Your task to perform on an android device: check data usage Image 0: 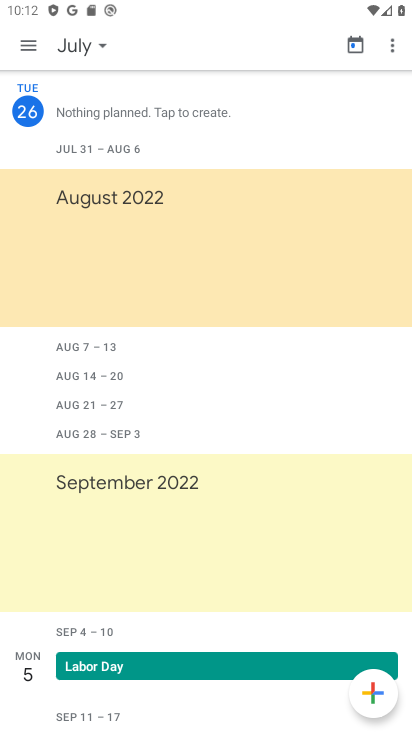
Step 0: press home button
Your task to perform on an android device: check data usage Image 1: 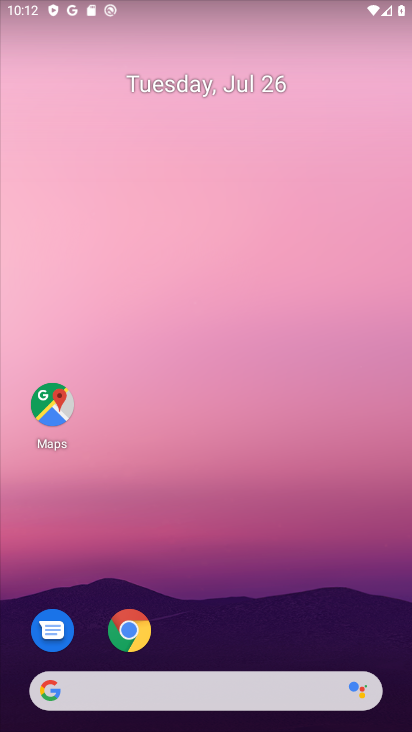
Step 1: drag from (239, 631) to (201, 165)
Your task to perform on an android device: check data usage Image 2: 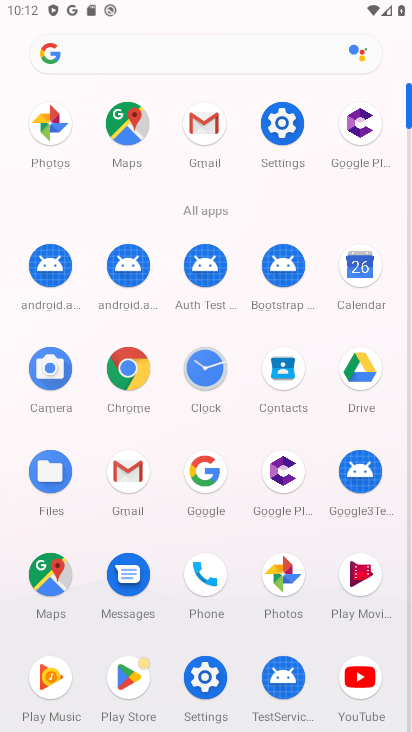
Step 2: click (268, 122)
Your task to perform on an android device: check data usage Image 3: 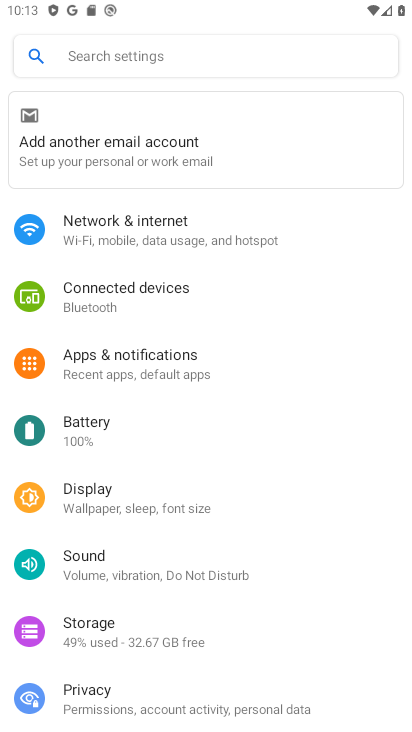
Step 3: drag from (160, 566) to (152, 391)
Your task to perform on an android device: check data usage Image 4: 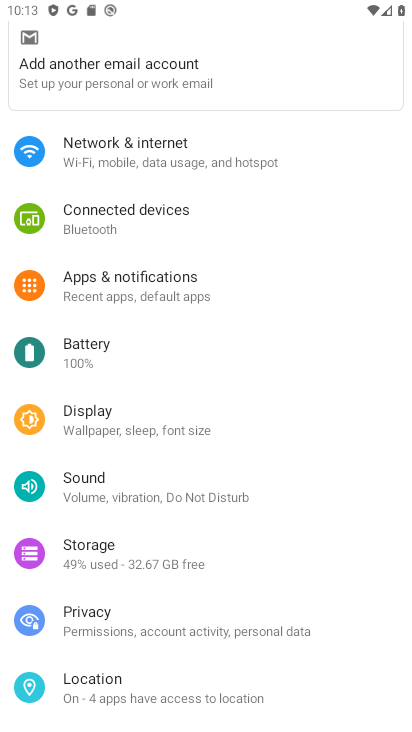
Step 4: click (160, 159)
Your task to perform on an android device: check data usage Image 5: 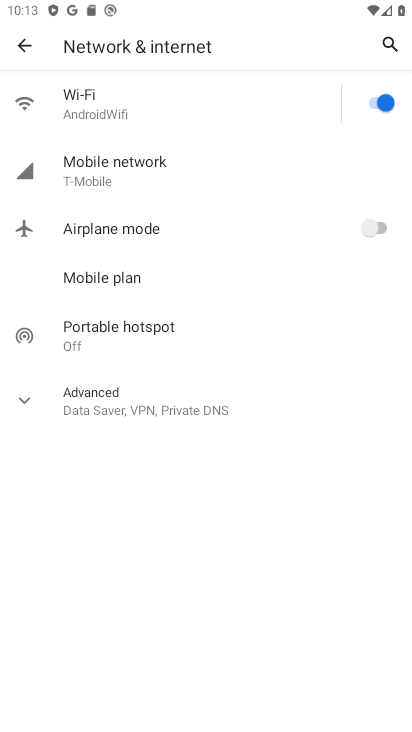
Step 5: click (20, 48)
Your task to perform on an android device: check data usage Image 6: 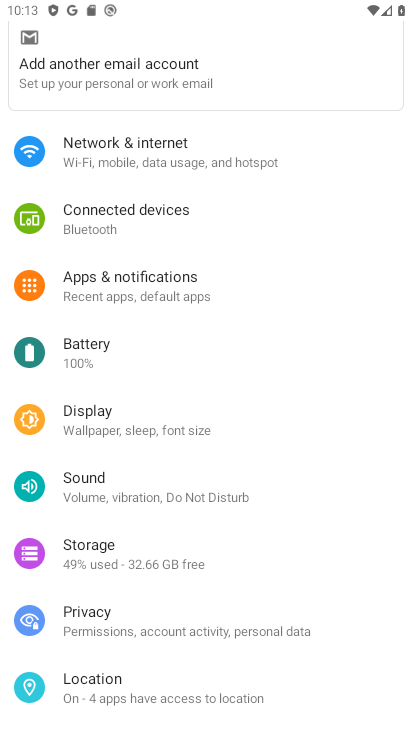
Step 6: task complete